Your task to perform on an android device: Open Google Maps and go to "Timeline" Image 0: 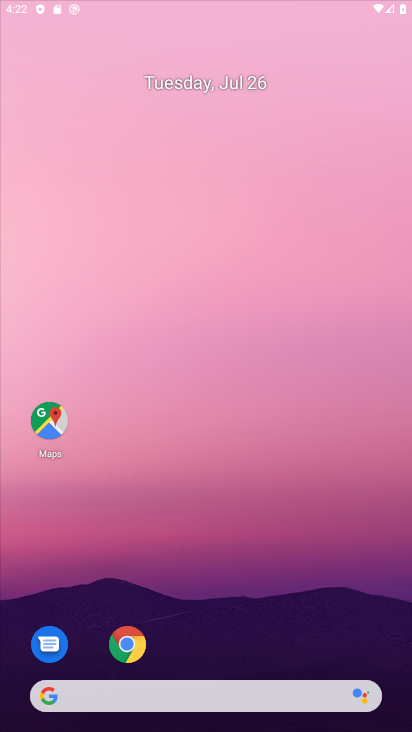
Step 0: click (318, 368)
Your task to perform on an android device: Open Google Maps and go to "Timeline" Image 1: 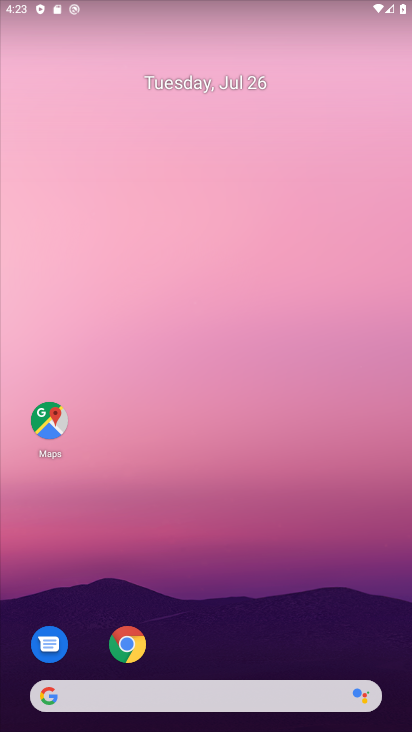
Step 1: drag from (206, 448) to (268, 76)
Your task to perform on an android device: Open Google Maps and go to "Timeline" Image 2: 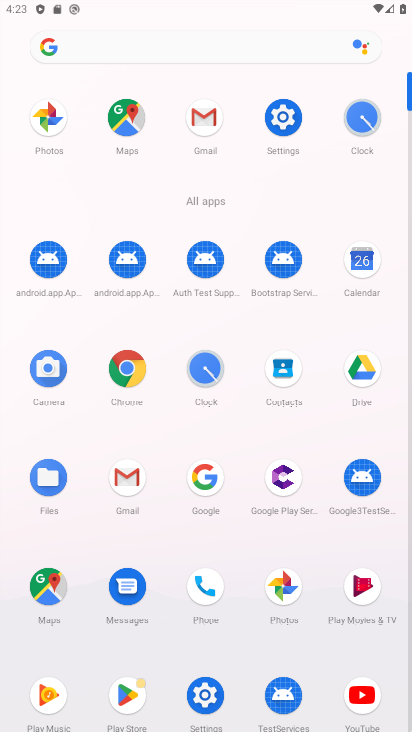
Step 2: click (45, 587)
Your task to perform on an android device: Open Google Maps and go to "Timeline" Image 3: 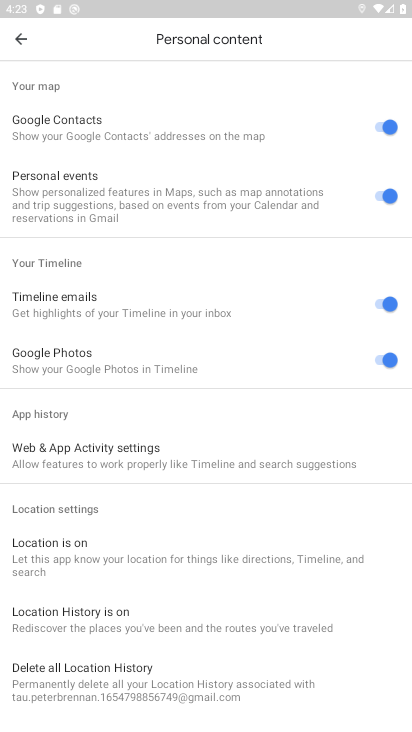
Step 3: click (20, 44)
Your task to perform on an android device: Open Google Maps and go to "Timeline" Image 4: 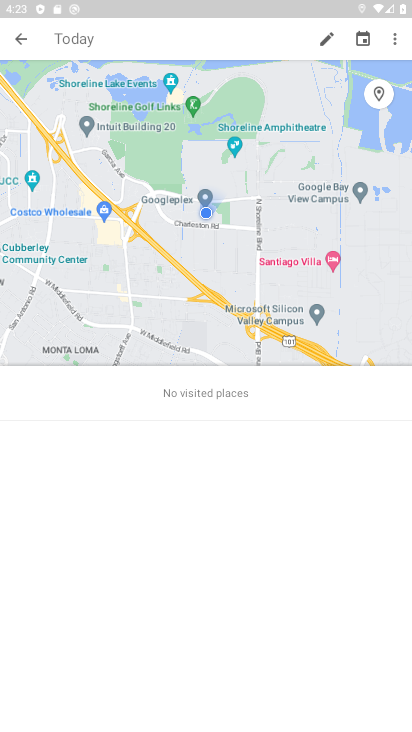
Step 4: task complete